Your task to perform on an android device: turn notification dots on Image 0: 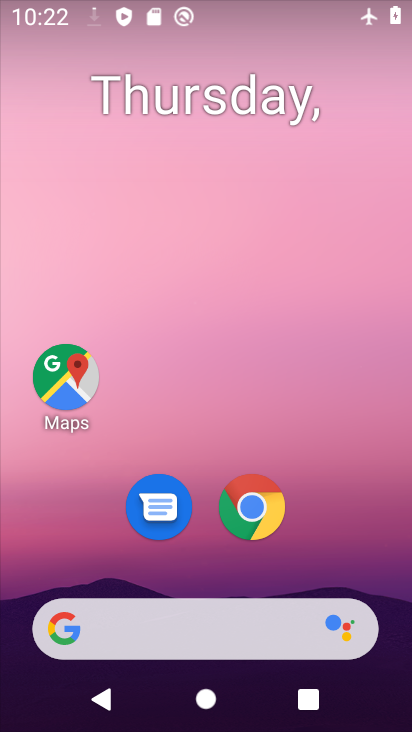
Step 0: drag from (344, 533) to (318, 37)
Your task to perform on an android device: turn notification dots on Image 1: 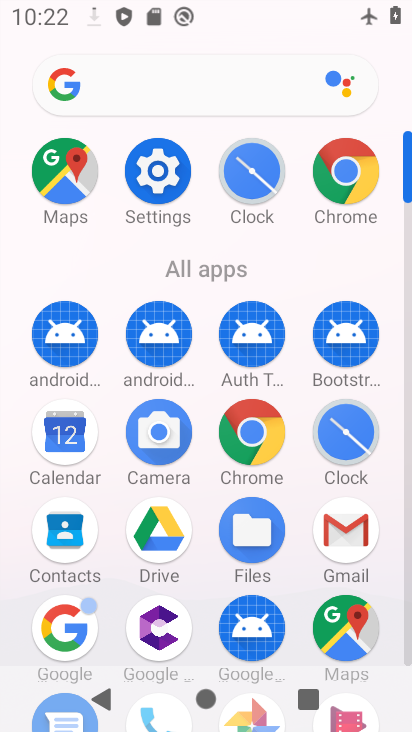
Step 1: click (156, 170)
Your task to perform on an android device: turn notification dots on Image 2: 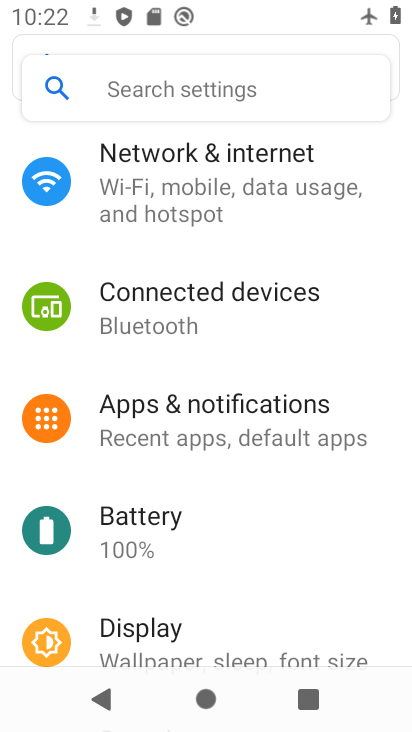
Step 2: click (176, 407)
Your task to perform on an android device: turn notification dots on Image 3: 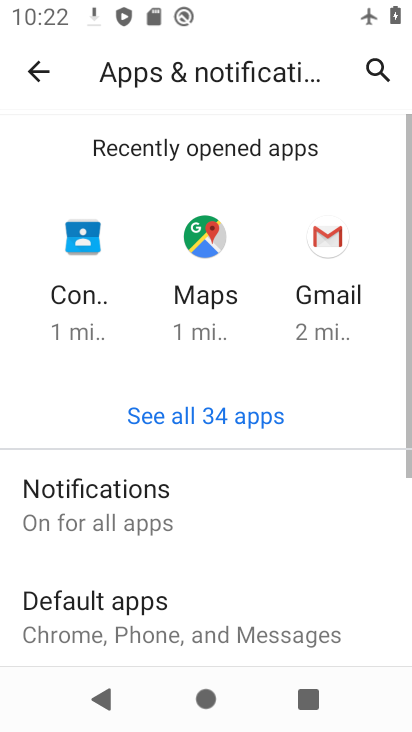
Step 3: drag from (217, 554) to (245, 194)
Your task to perform on an android device: turn notification dots on Image 4: 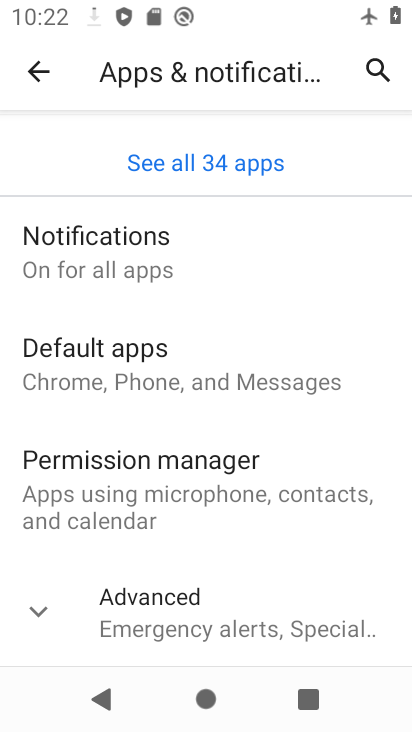
Step 4: click (140, 234)
Your task to perform on an android device: turn notification dots on Image 5: 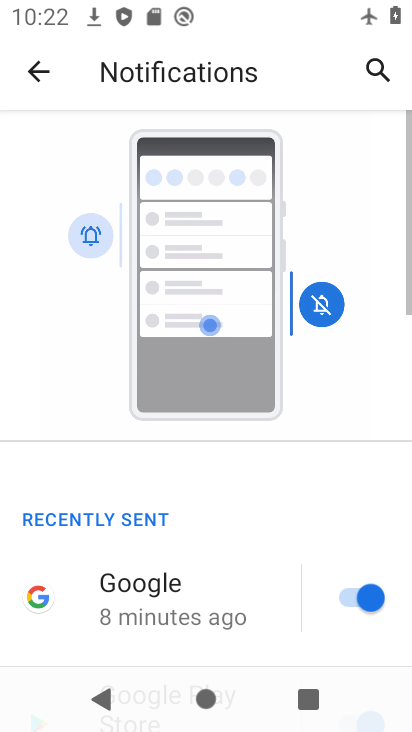
Step 5: drag from (147, 608) to (230, 188)
Your task to perform on an android device: turn notification dots on Image 6: 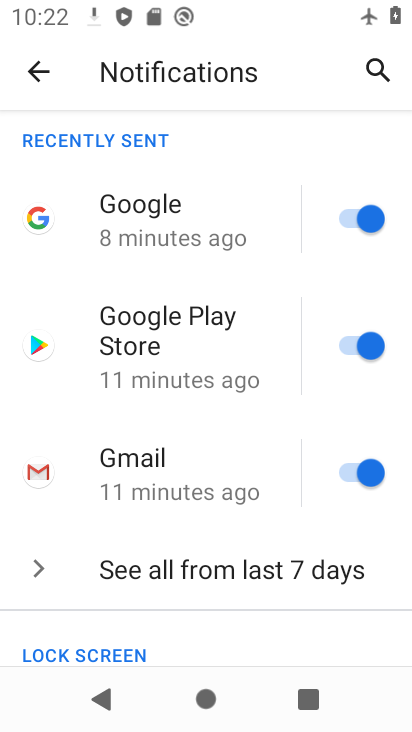
Step 6: drag from (154, 504) to (233, 141)
Your task to perform on an android device: turn notification dots on Image 7: 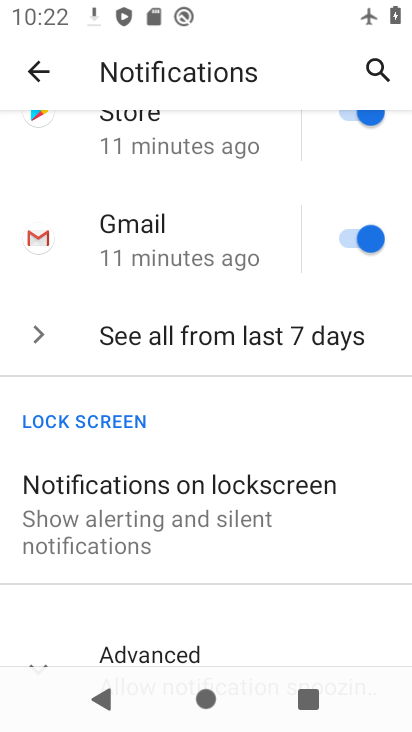
Step 7: drag from (192, 577) to (212, 192)
Your task to perform on an android device: turn notification dots on Image 8: 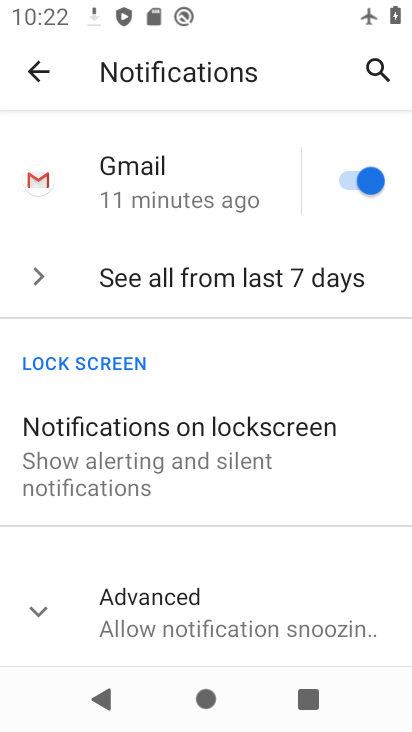
Step 8: click (162, 616)
Your task to perform on an android device: turn notification dots on Image 9: 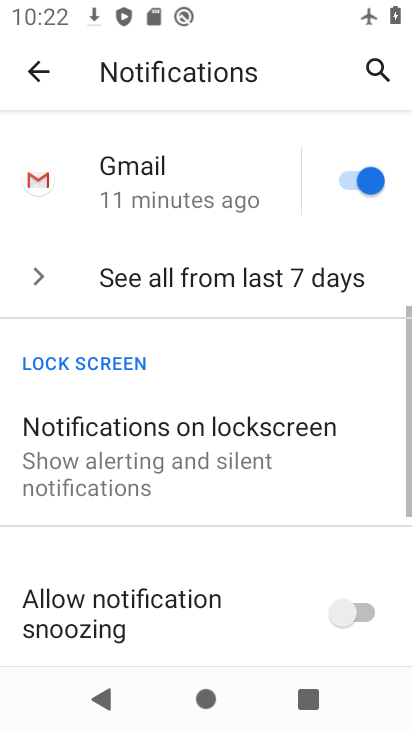
Step 9: task complete